Your task to perform on an android device: Open Yahoo.com Image 0: 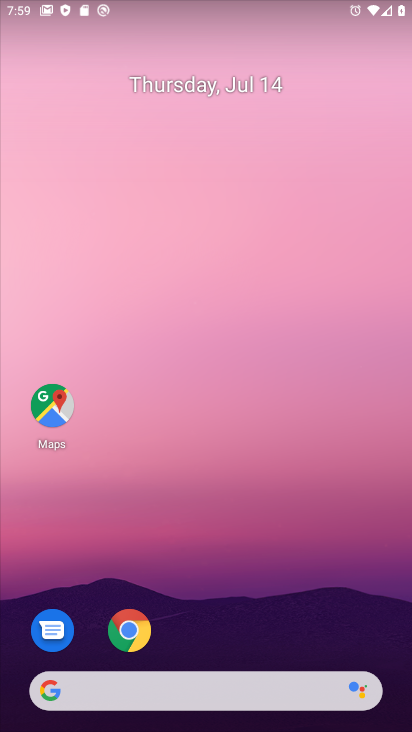
Step 0: drag from (224, 726) to (230, 54)
Your task to perform on an android device: Open Yahoo.com Image 1: 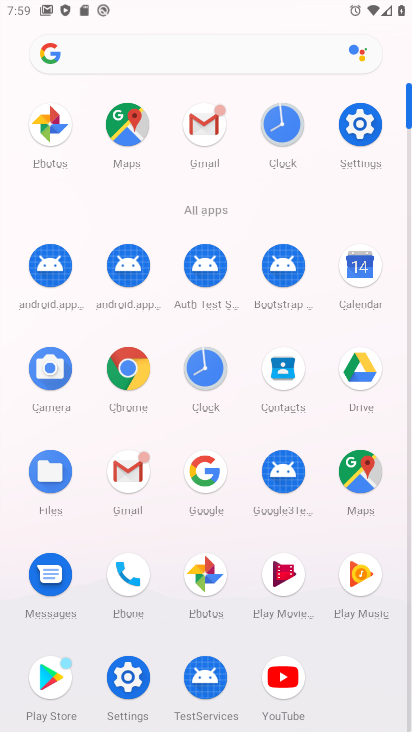
Step 1: click (127, 357)
Your task to perform on an android device: Open Yahoo.com Image 2: 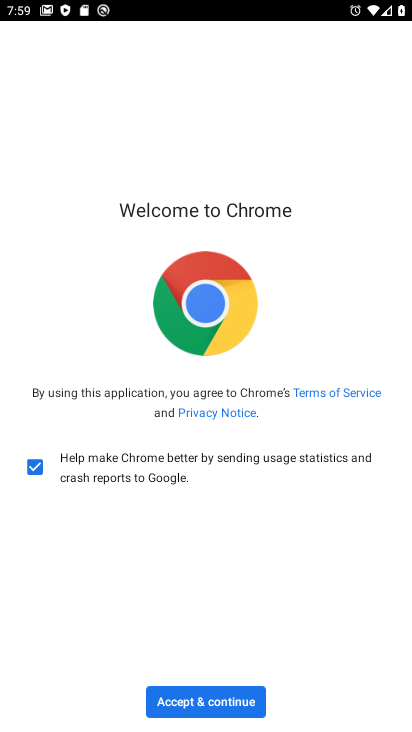
Step 2: click (243, 698)
Your task to perform on an android device: Open Yahoo.com Image 3: 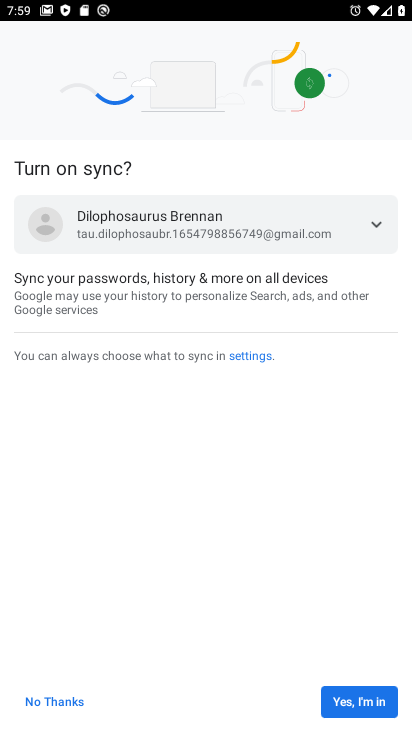
Step 3: click (386, 699)
Your task to perform on an android device: Open Yahoo.com Image 4: 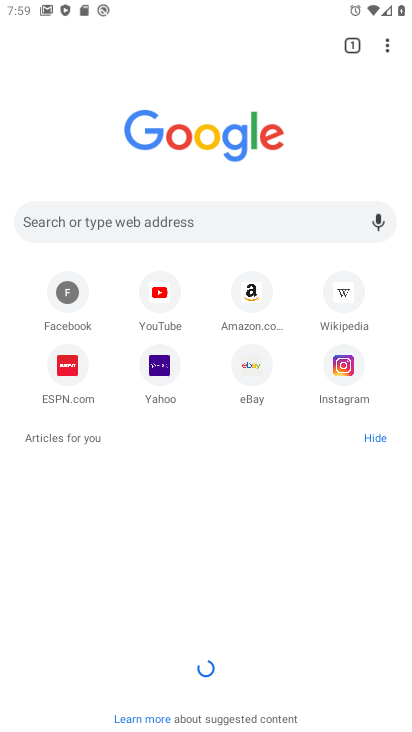
Step 4: click (163, 362)
Your task to perform on an android device: Open Yahoo.com Image 5: 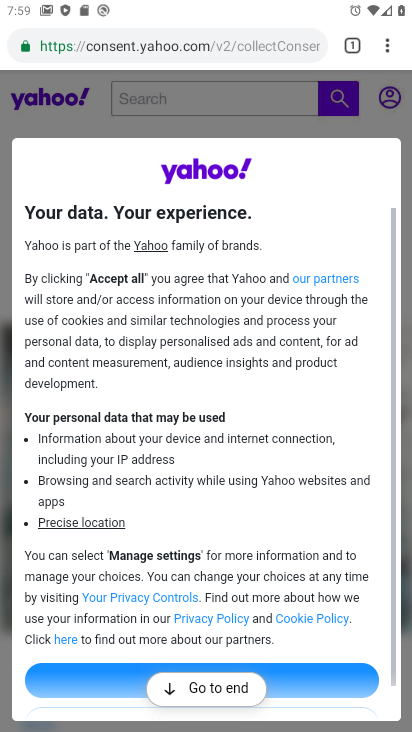
Step 5: click (185, 681)
Your task to perform on an android device: Open Yahoo.com Image 6: 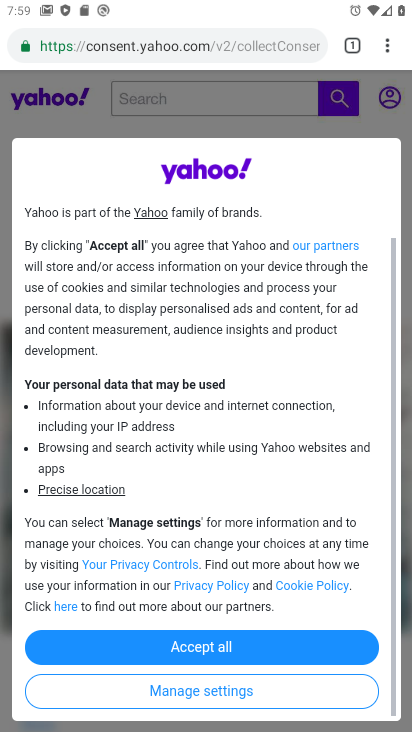
Step 6: click (183, 649)
Your task to perform on an android device: Open Yahoo.com Image 7: 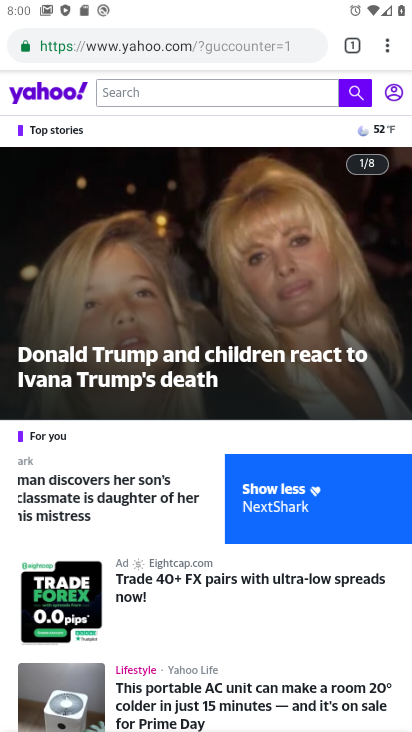
Step 7: task complete